Your task to perform on an android device: Open Amazon Image 0: 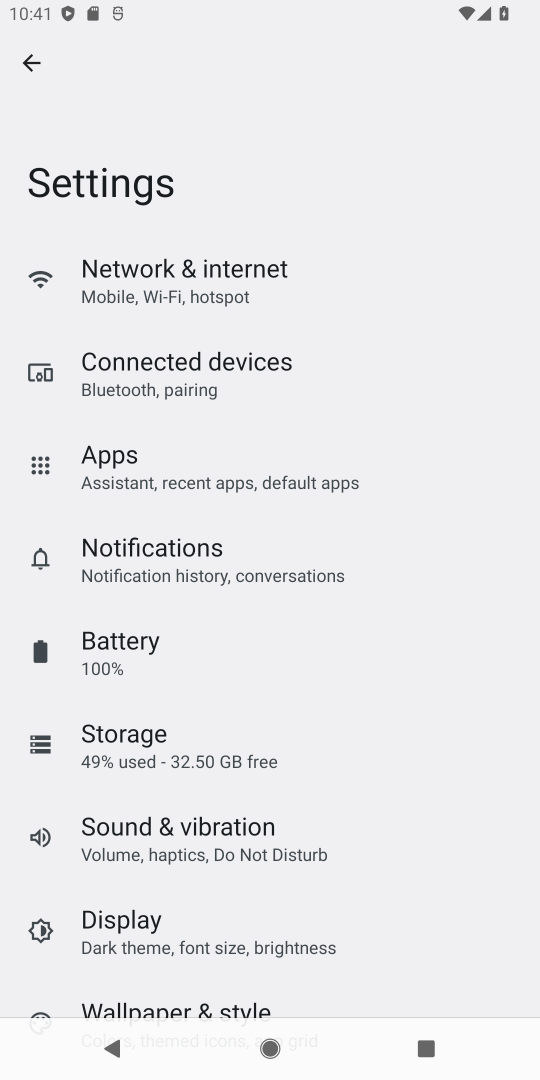
Step 0: press home button
Your task to perform on an android device: Open Amazon Image 1: 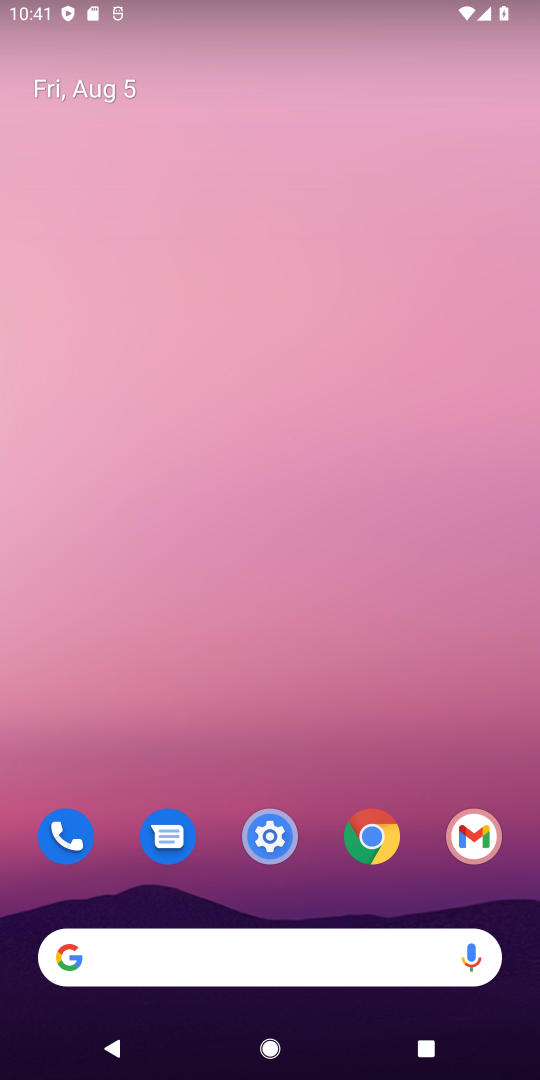
Step 1: drag from (317, 851) to (349, 204)
Your task to perform on an android device: Open Amazon Image 2: 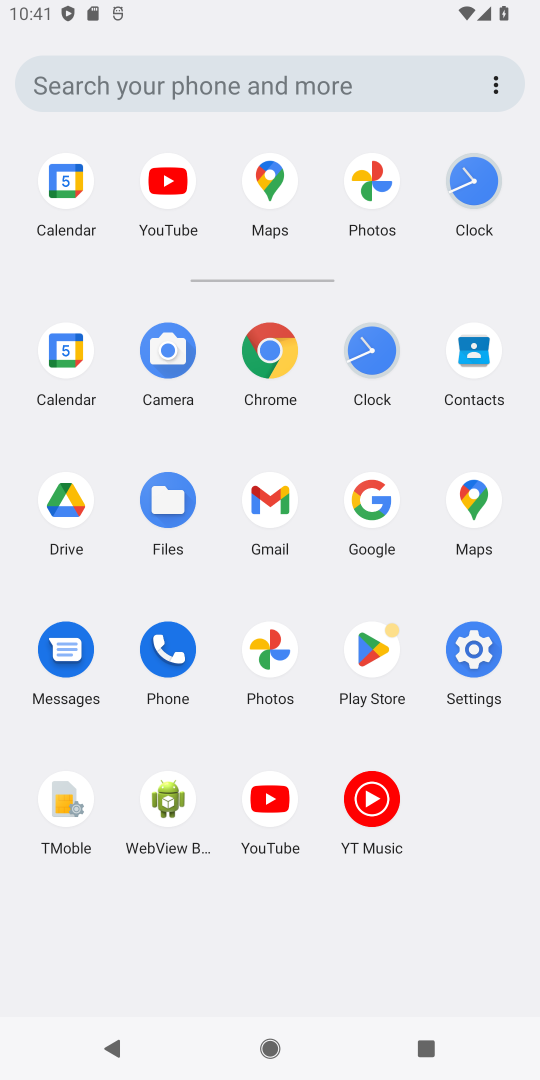
Step 2: click (266, 357)
Your task to perform on an android device: Open Amazon Image 3: 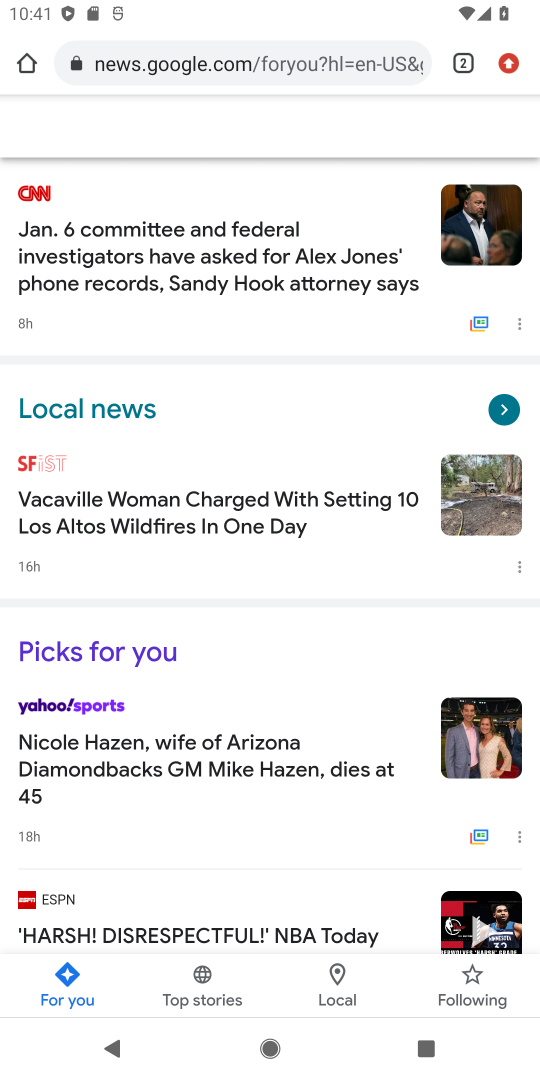
Step 3: click (250, 57)
Your task to perform on an android device: Open Amazon Image 4: 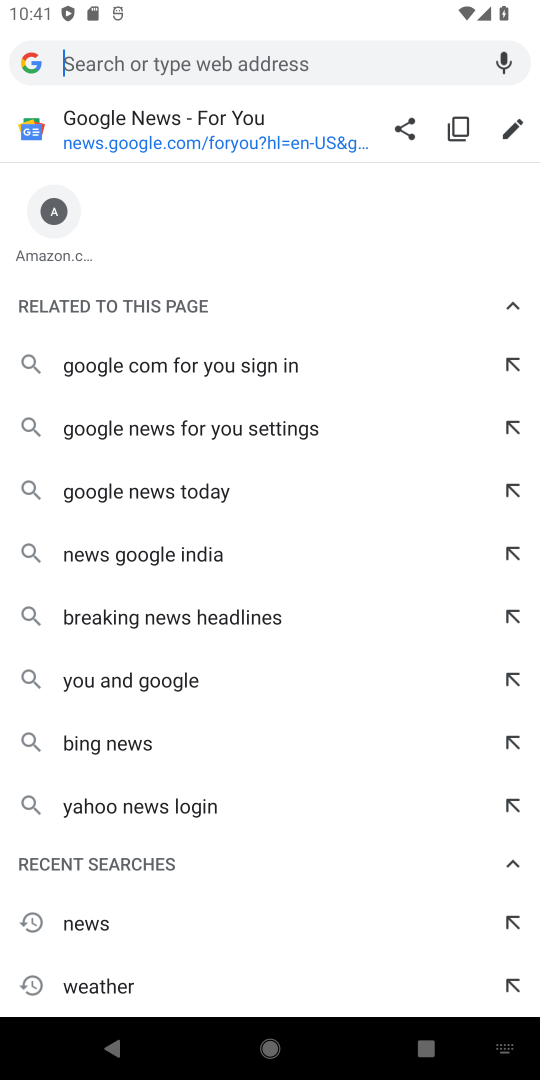
Step 4: type "amazon"
Your task to perform on an android device: Open Amazon Image 5: 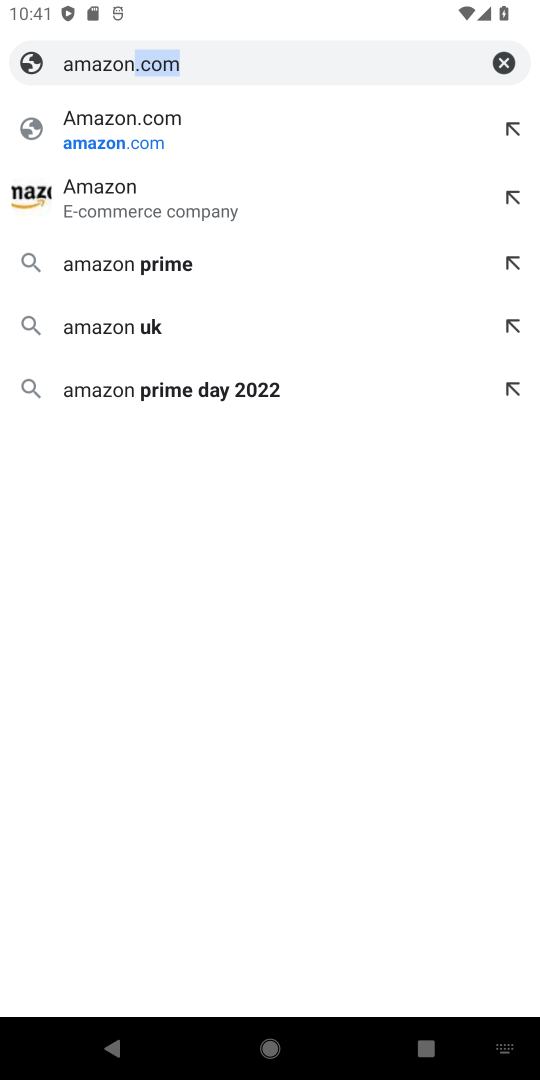
Step 5: click (143, 141)
Your task to perform on an android device: Open Amazon Image 6: 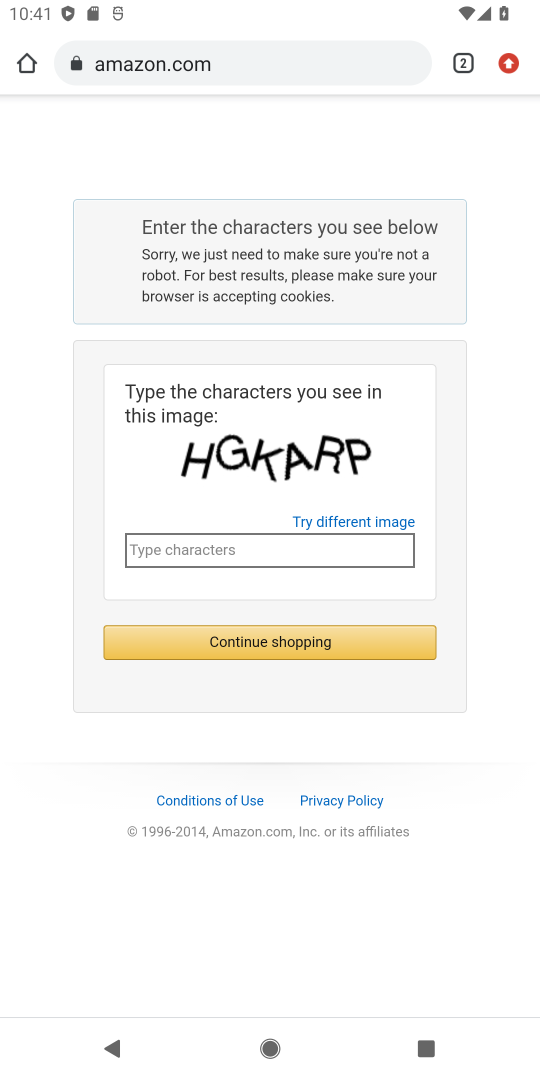
Step 6: task complete